Your task to perform on an android device: toggle show notifications on the lock screen Image 0: 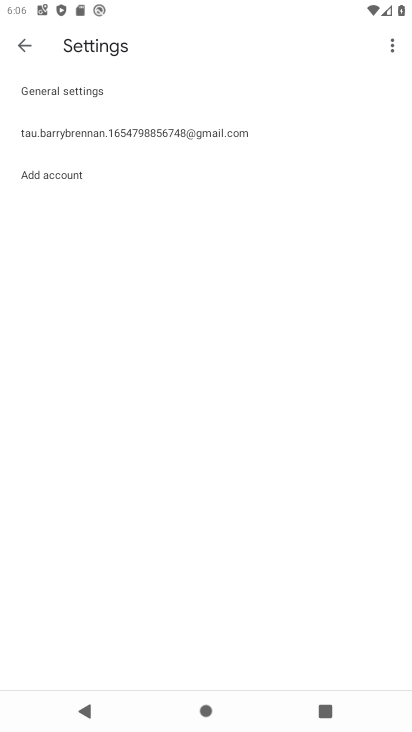
Step 0: press back button
Your task to perform on an android device: toggle show notifications on the lock screen Image 1: 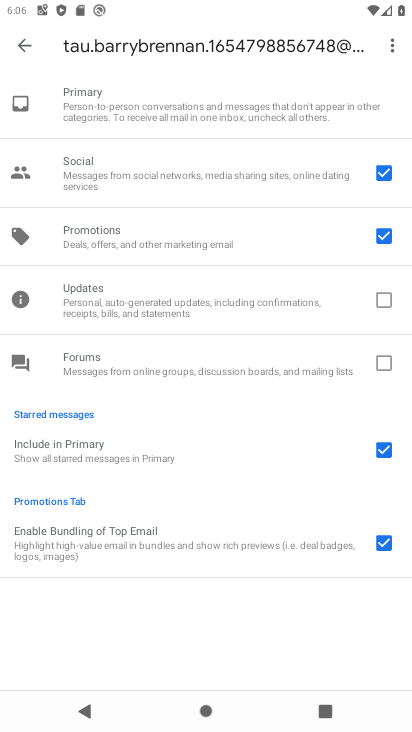
Step 1: press back button
Your task to perform on an android device: toggle show notifications on the lock screen Image 2: 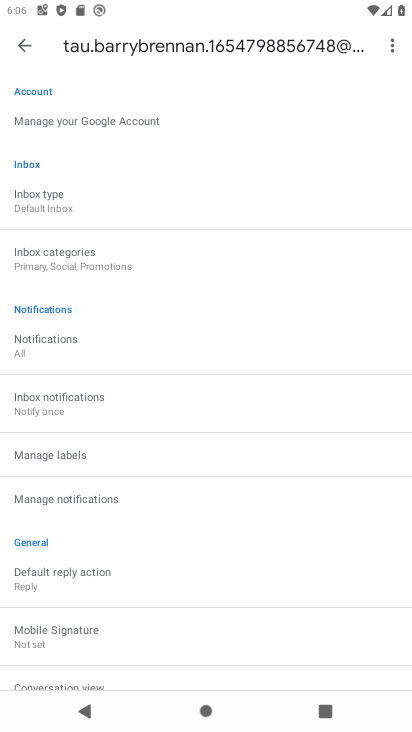
Step 2: press home button
Your task to perform on an android device: toggle show notifications on the lock screen Image 3: 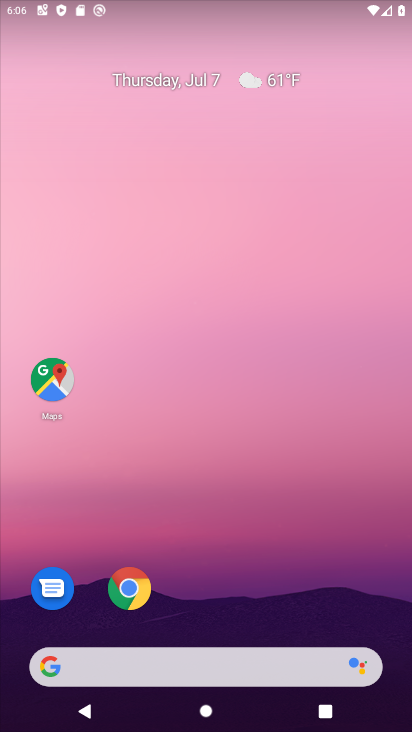
Step 3: drag from (210, 610) to (289, 0)
Your task to perform on an android device: toggle show notifications on the lock screen Image 4: 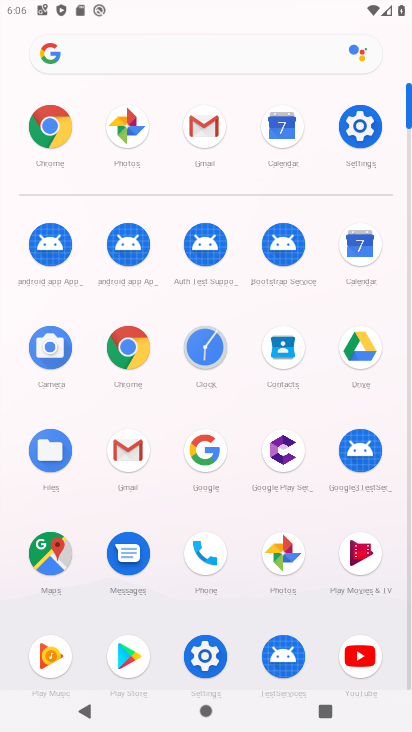
Step 4: click (366, 132)
Your task to perform on an android device: toggle show notifications on the lock screen Image 5: 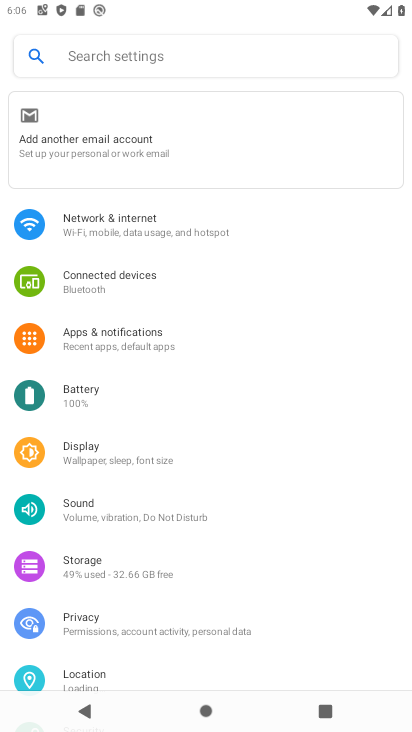
Step 5: click (141, 340)
Your task to perform on an android device: toggle show notifications on the lock screen Image 6: 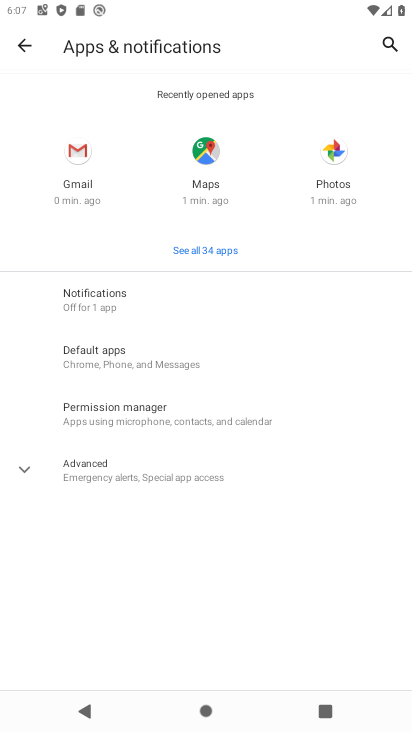
Step 6: click (124, 301)
Your task to perform on an android device: toggle show notifications on the lock screen Image 7: 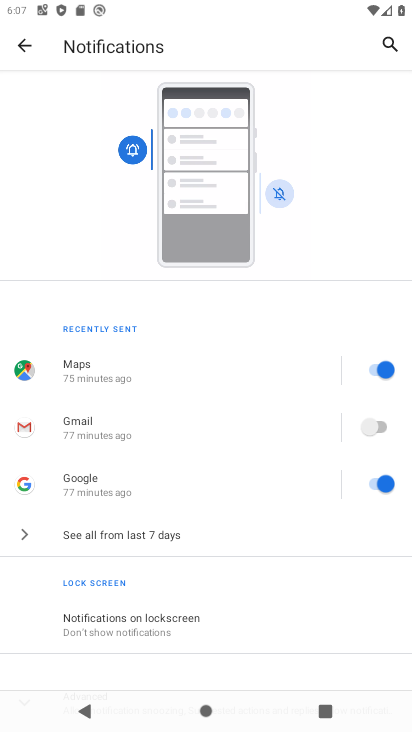
Step 7: click (162, 618)
Your task to perform on an android device: toggle show notifications on the lock screen Image 8: 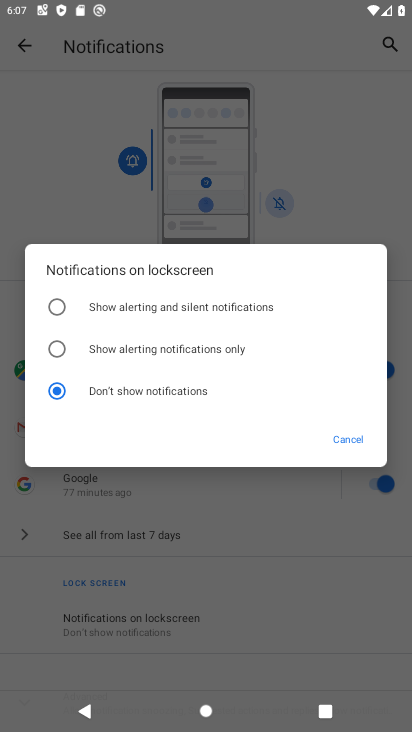
Step 8: click (56, 306)
Your task to perform on an android device: toggle show notifications on the lock screen Image 9: 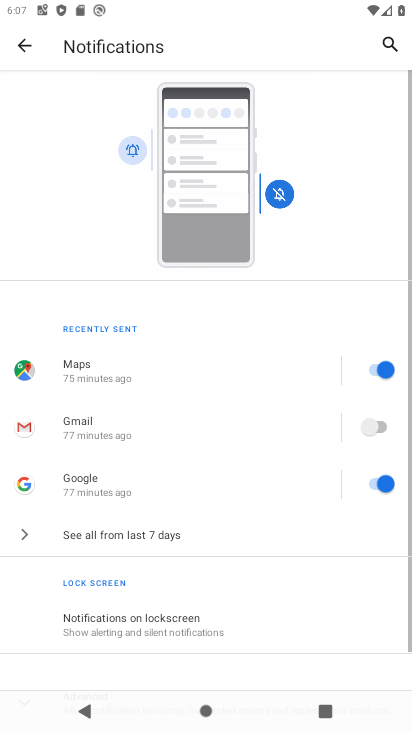
Step 9: task complete